Your task to perform on an android device: Open the web browser Image 0: 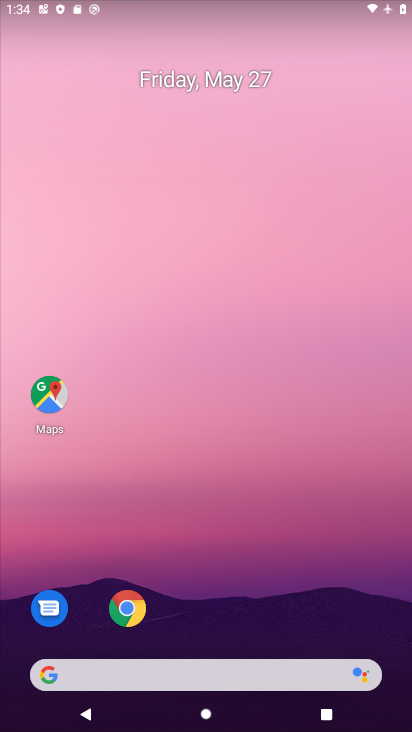
Step 0: press home button
Your task to perform on an android device: Open the web browser Image 1: 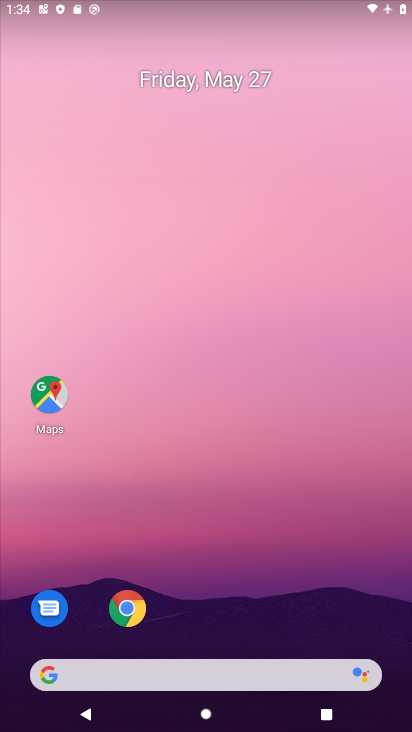
Step 1: click (121, 622)
Your task to perform on an android device: Open the web browser Image 2: 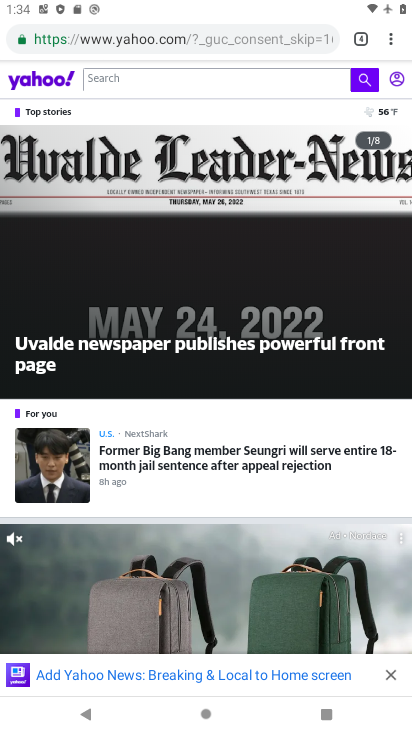
Step 2: task complete